Your task to perform on an android device: turn off wifi Image 0: 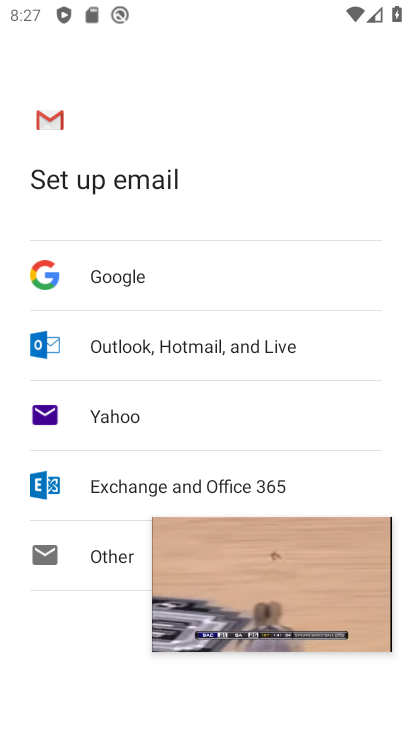
Step 0: press home button
Your task to perform on an android device: turn off wifi Image 1: 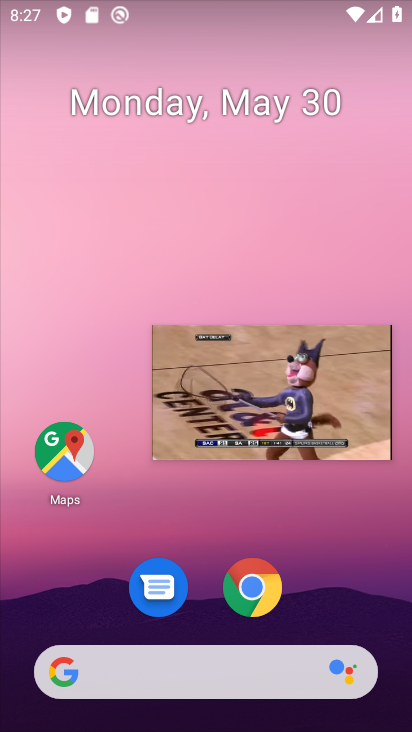
Step 1: drag from (216, 543) to (258, 165)
Your task to perform on an android device: turn off wifi Image 2: 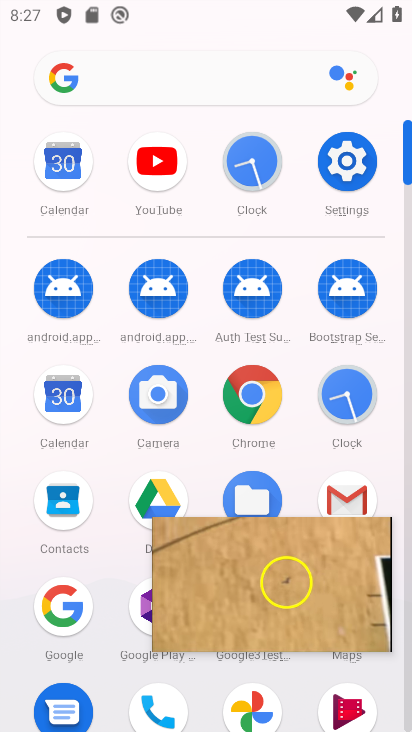
Step 2: click (354, 163)
Your task to perform on an android device: turn off wifi Image 3: 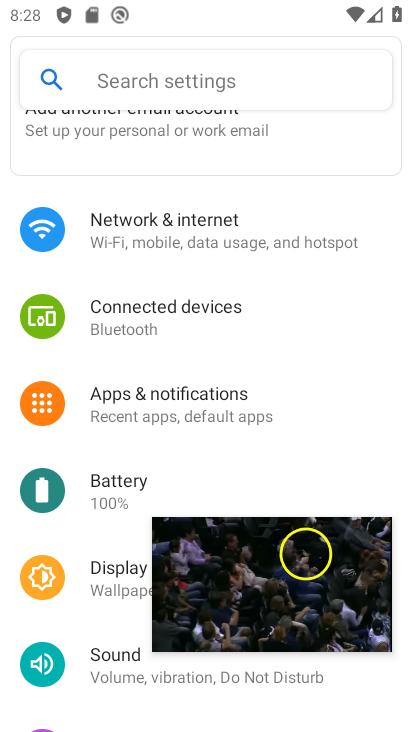
Step 3: click (201, 191)
Your task to perform on an android device: turn off wifi Image 4: 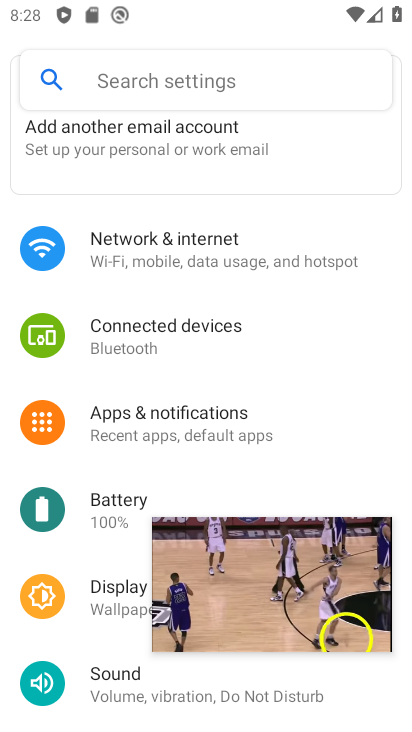
Step 4: click (157, 245)
Your task to perform on an android device: turn off wifi Image 5: 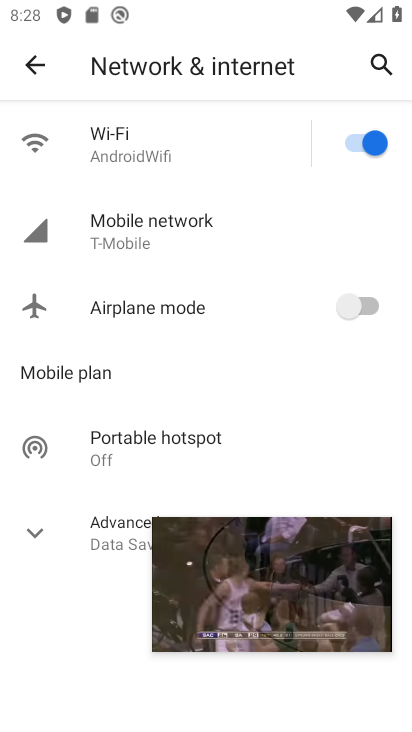
Step 5: click (349, 150)
Your task to perform on an android device: turn off wifi Image 6: 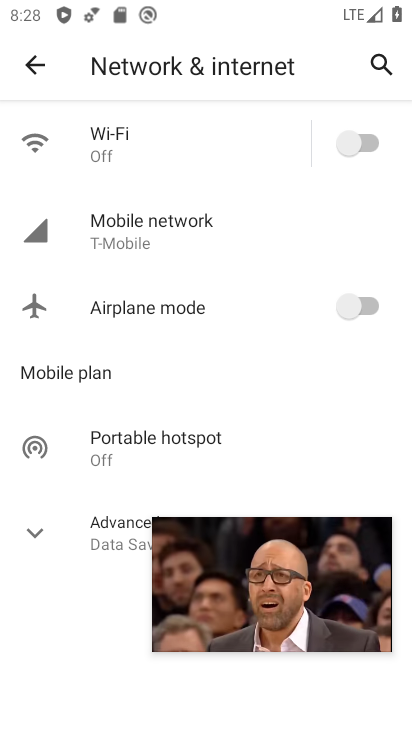
Step 6: task complete